Your task to perform on an android device: Add "razer kraken" to the cart on newegg.com Image 0: 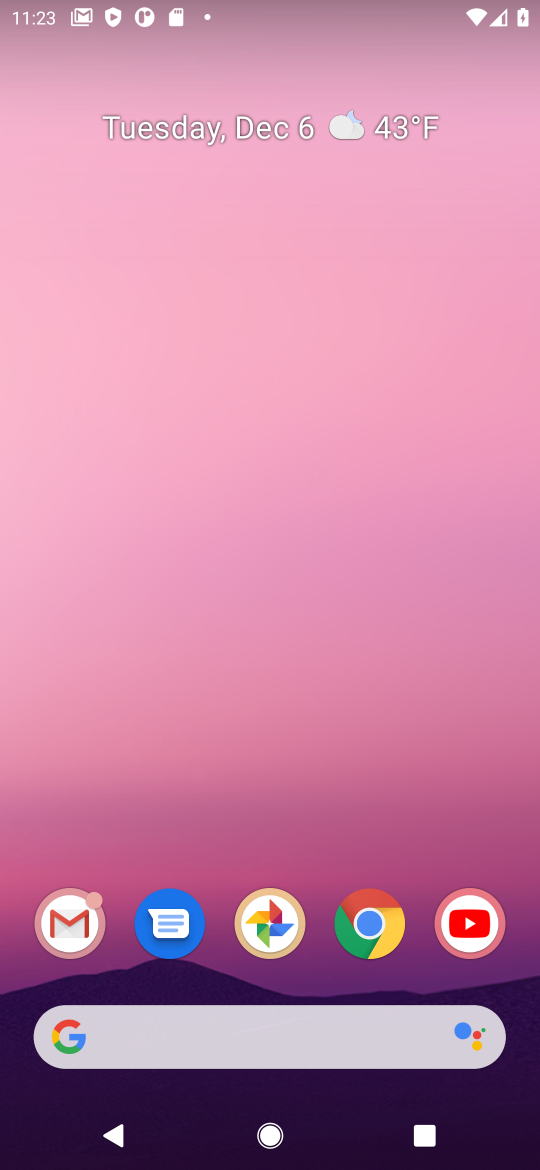
Step 0: click (378, 924)
Your task to perform on an android device: Add "razer kraken" to the cart on newegg.com Image 1: 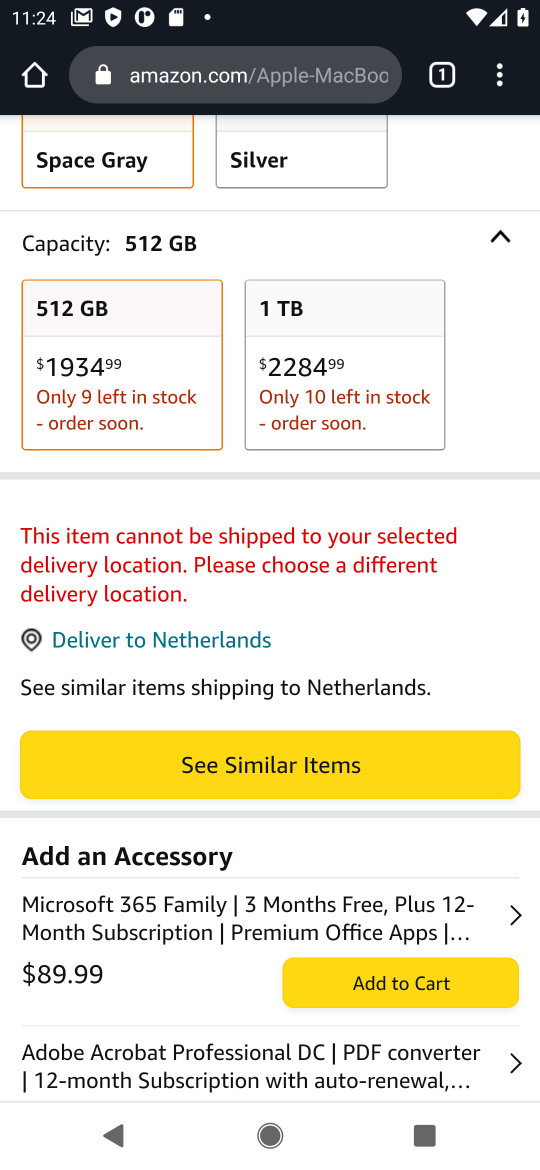
Step 1: click (252, 73)
Your task to perform on an android device: Add "razer kraken" to the cart on newegg.com Image 2: 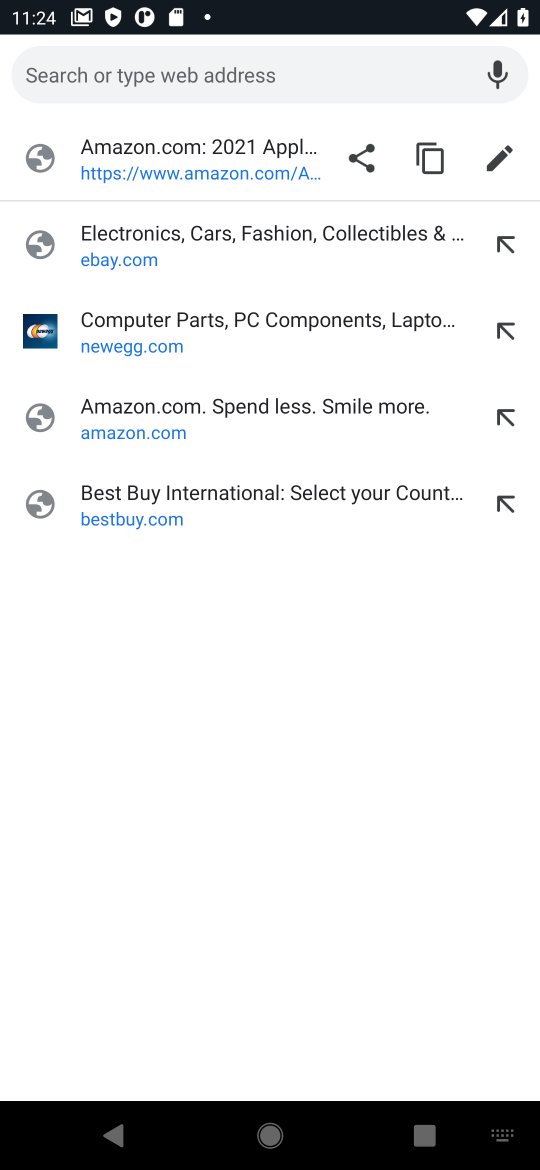
Step 2: type "NEWEGG"
Your task to perform on an android device: Add "razer kraken" to the cart on newegg.com Image 3: 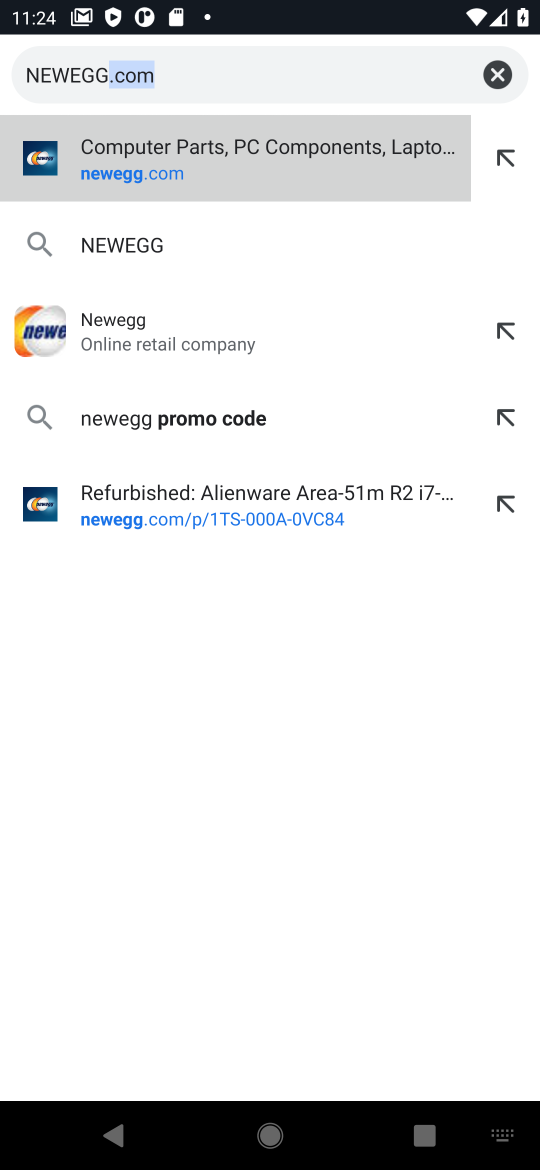
Step 3: click (153, 177)
Your task to perform on an android device: Add "razer kraken" to the cart on newegg.com Image 4: 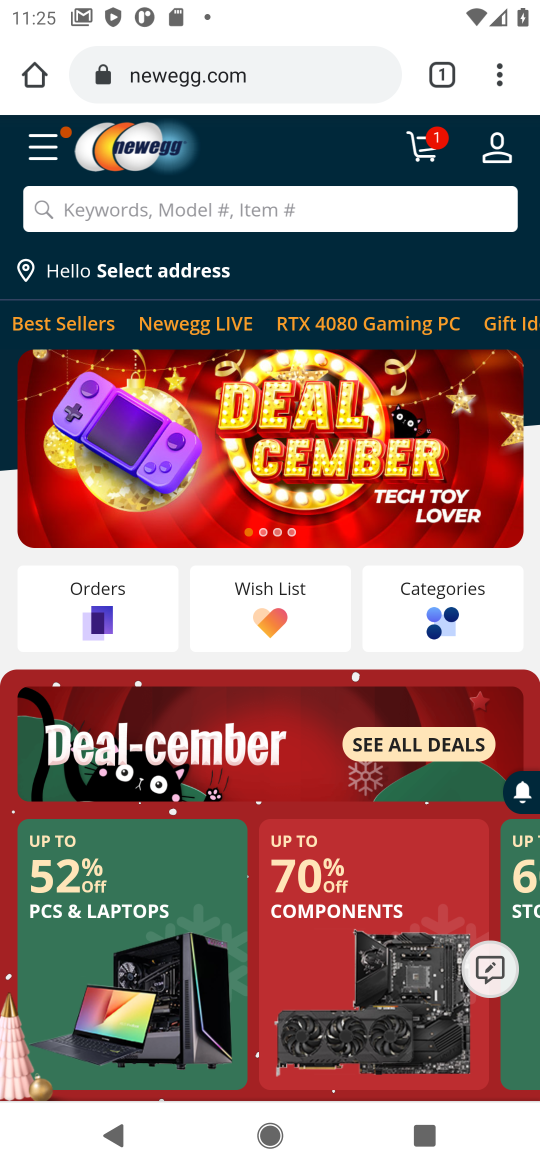
Step 4: click (306, 208)
Your task to perform on an android device: Add "razer kraken" to the cart on newegg.com Image 5: 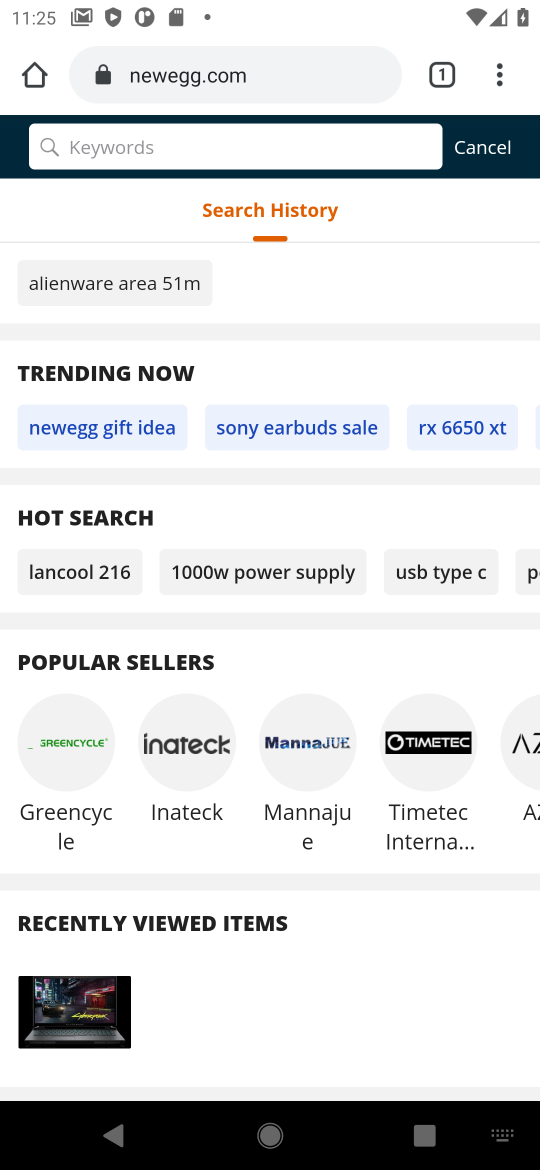
Step 5: type "razer kraken"
Your task to perform on an android device: Add "razer kraken" to the cart on newegg.com Image 6: 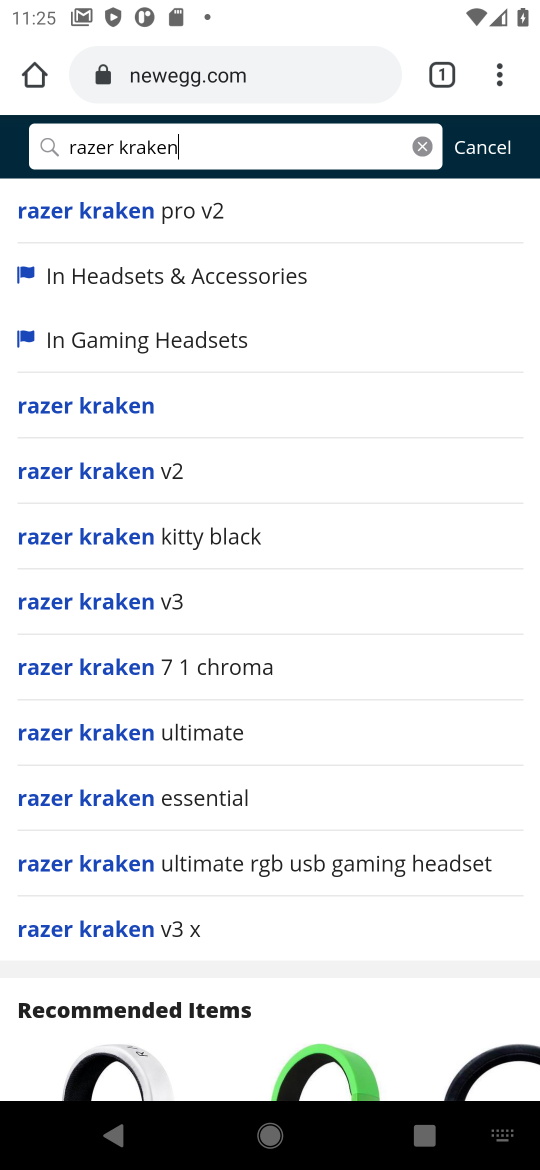
Step 6: click (162, 200)
Your task to perform on an android device: Add "razer kraken" to the cart on newegg.com Image 7: 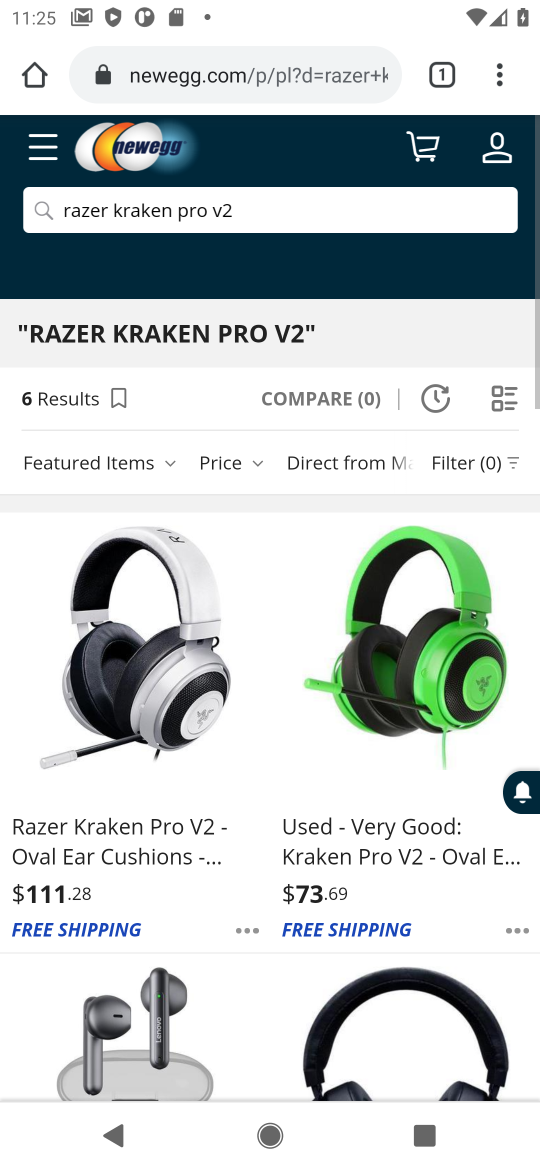
Step 7: click (90, 718)
Your task to perform on an android device: Add "razer kraken" to the cart on newegg.com Image 8: 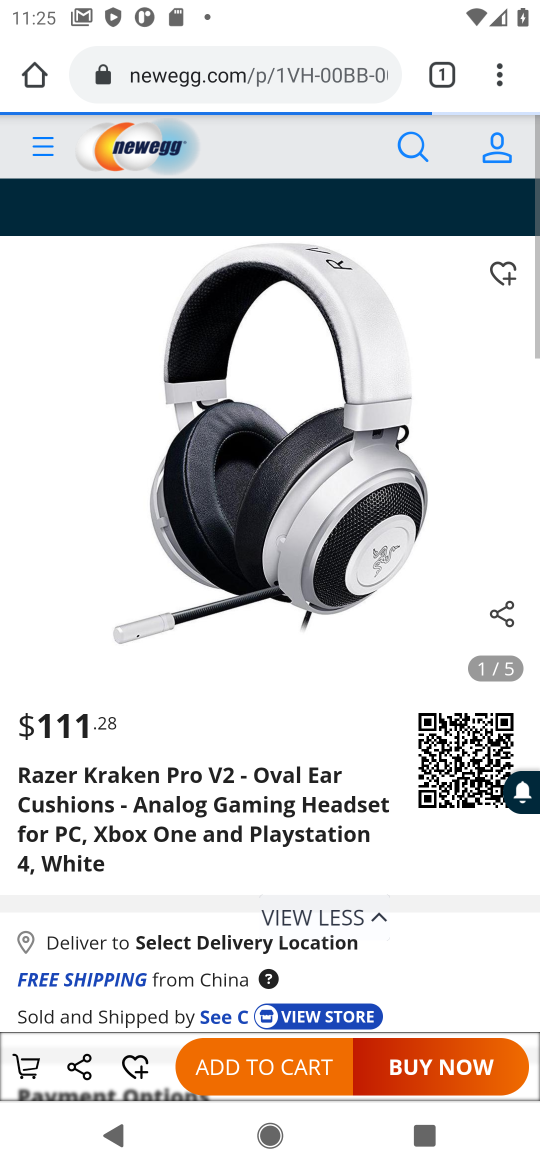
Step 8: click (299, 1060)
Your task to perform on an android device: Add "razer kraken" to the cart on newegg.com Image 9: 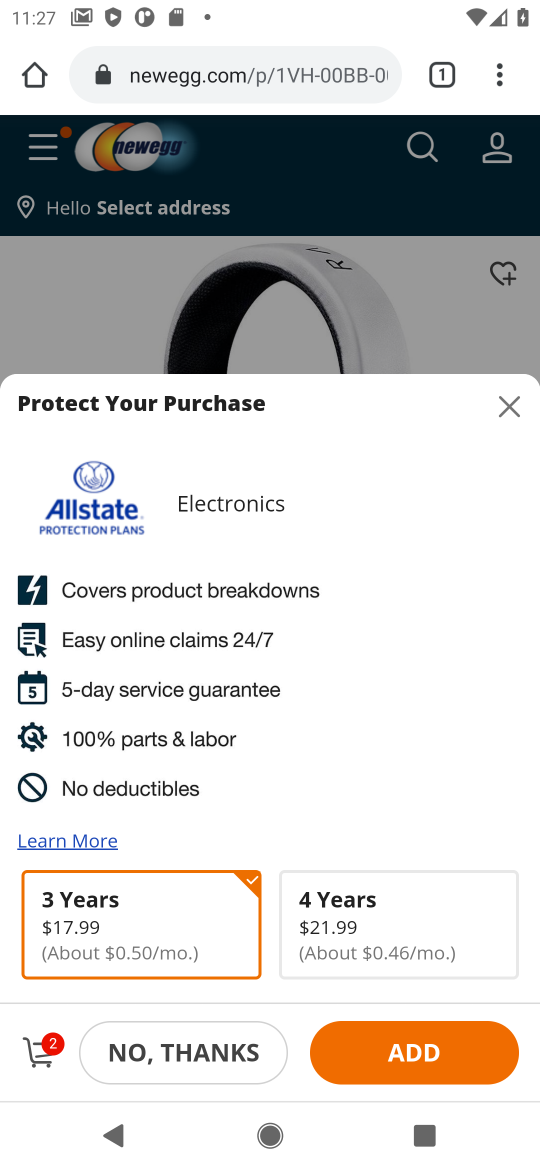
Step 9: task complete